Your task to perform on an android device: Open calendar and show me the third week of next month Image 0: 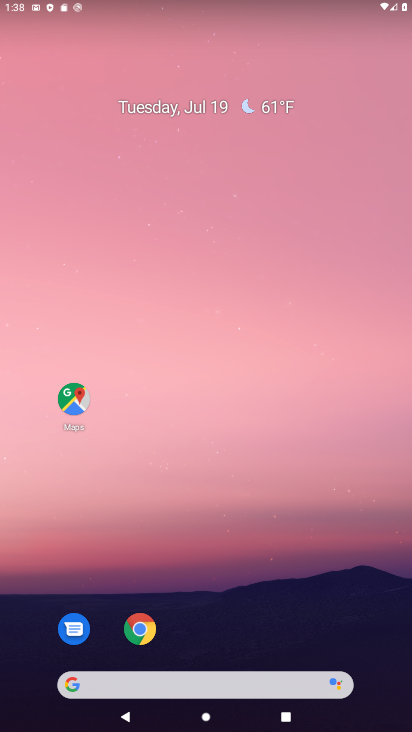
Step 0: drag from (349, 613) to (345, 239)
Your task to perform on an android device: Open calendar and show me the third week of next month Image 1: 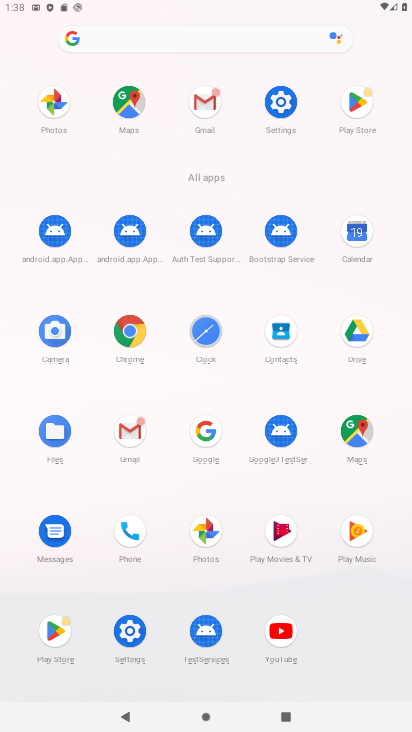
Step 1: click (354, 232)
Your task to perform on an android device: Open calendar and show me the third week of next month Image 2: 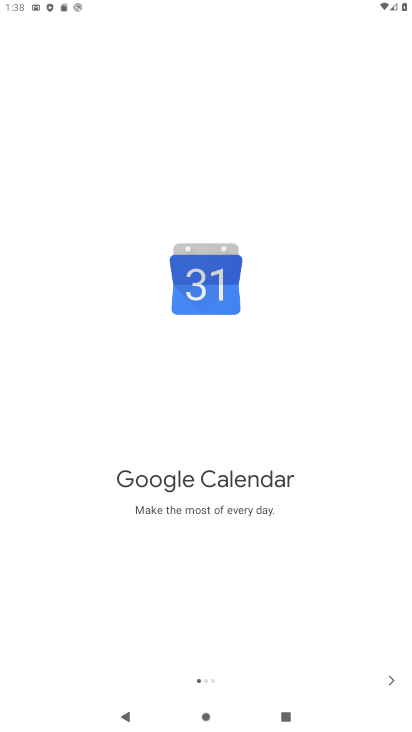
Step 2: click (391, 682)
Your task to perform on an android device: Open calendar and show me the third week of next month Image 3: 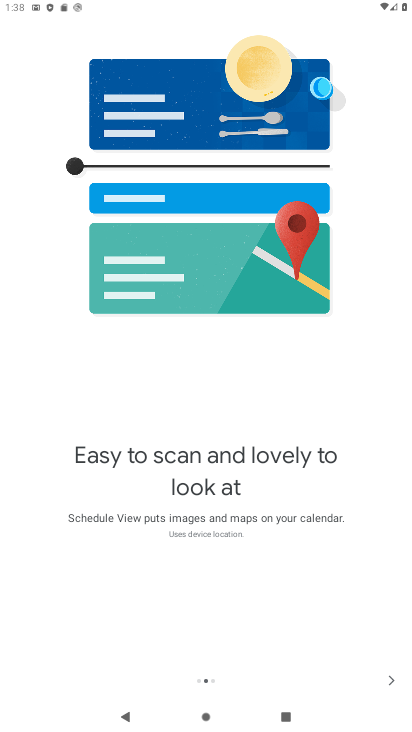
Step 3: click (391, 682)
Your task to perform on an android device: Open calendar and show me the third week of next month Image 4: 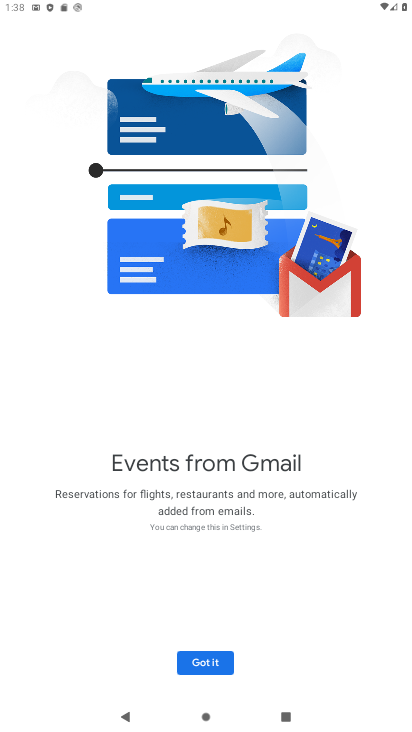
Step 4: click (203, 659)
Your task to perform on an android device: Open calendar and show me the third week of next month Image 5: 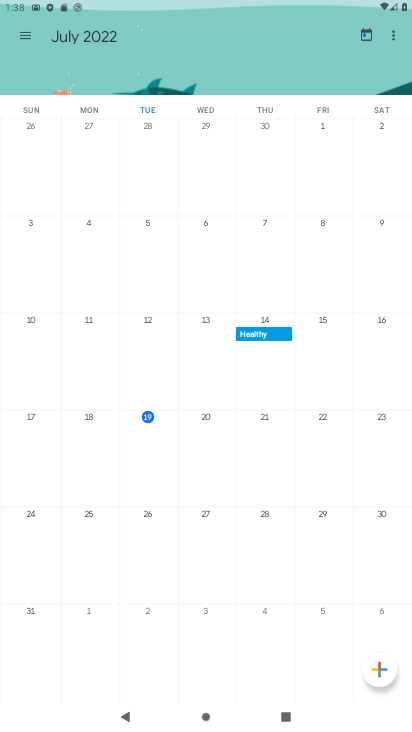
Step 5: click (16, 28)
Your task to perform on an android device: Open calendar and show me the third week of next month Image 6: 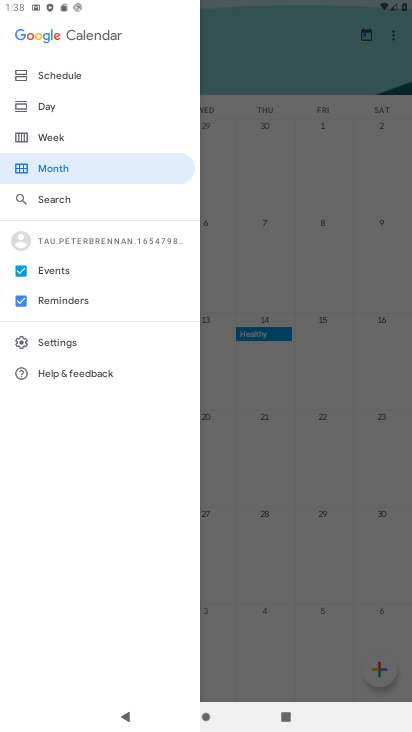
Step 6: click (49, 137)
Your task to perform on an android device: Open calendar and show me the third week of next month Image 7: 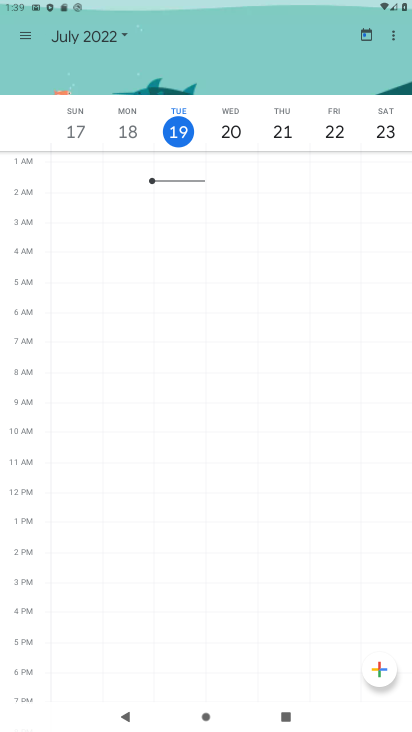
Step 7: click (120, 30)
Your task to perform on an android device: Open calendar and show me the third week of next month Image 8: 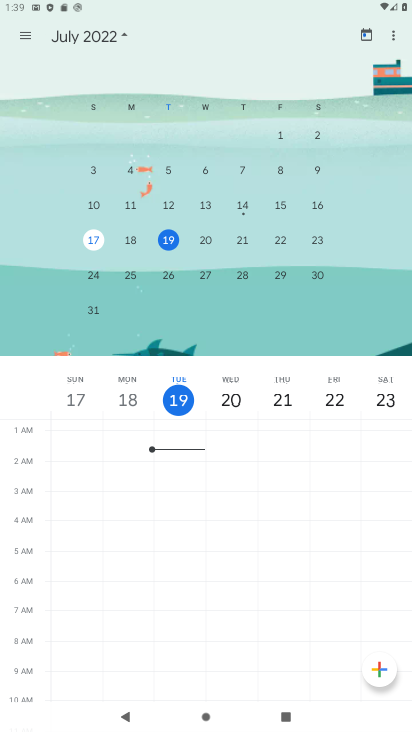
Step 8: drag from (322, 232) to (85, 265)
Your task to perform on an android device: Open calendar and show me the third week of next month Image 9: 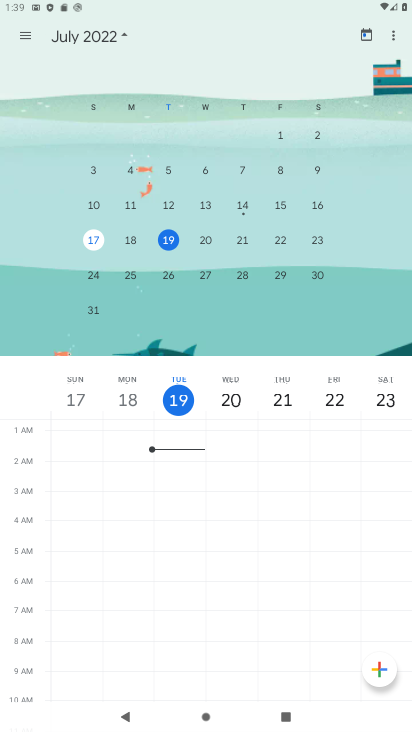
Step 9: drag from (322, 231) to (60, 214)
Your task to perform on an android device: Open calendar and show me the third week of next month Image 10: 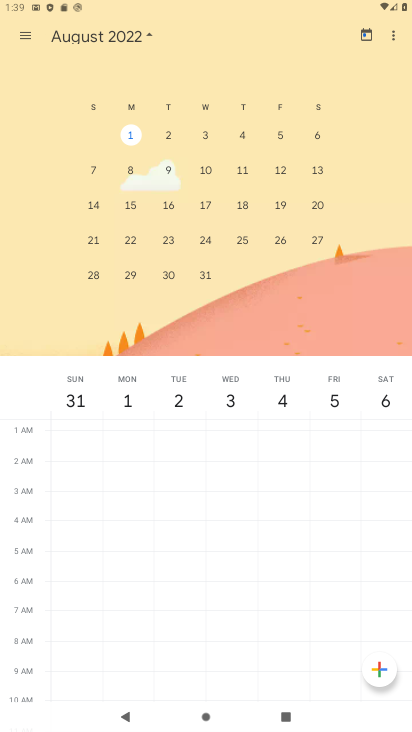
Step 10: click (91, 240)
Your task to perform on an android device: Open calendar and show me the third week of next month Image 11: 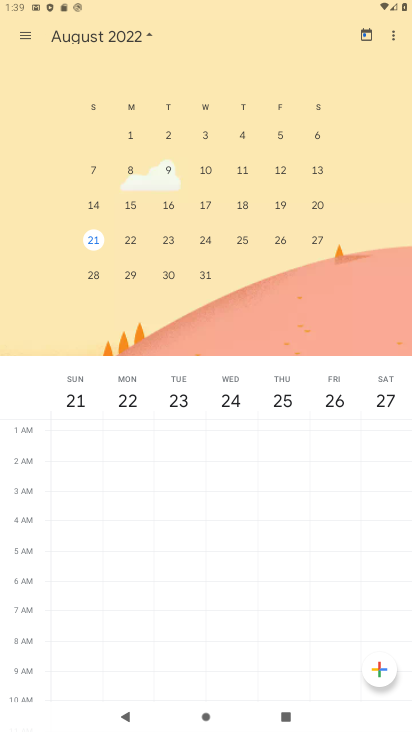
Step 11: task complete